Your task to perform on an android device: delete browsing data in the chrome app Image 0: 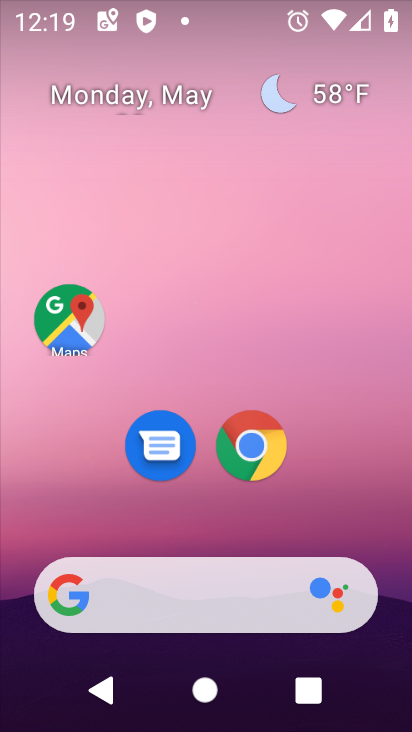
Step 0: click (248, 436)
Your task to perform on an android device: delete browsing data in the chrome app Image 1: 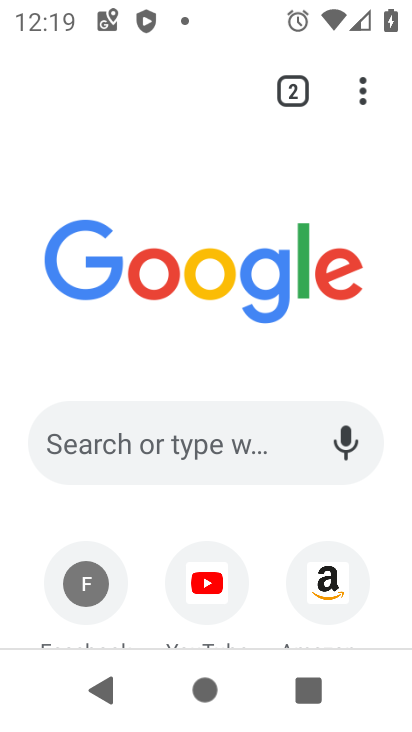
Step 1: click (361, 78)
Your task to perform on an android device: delete browsing data in the chrome app Image 2: 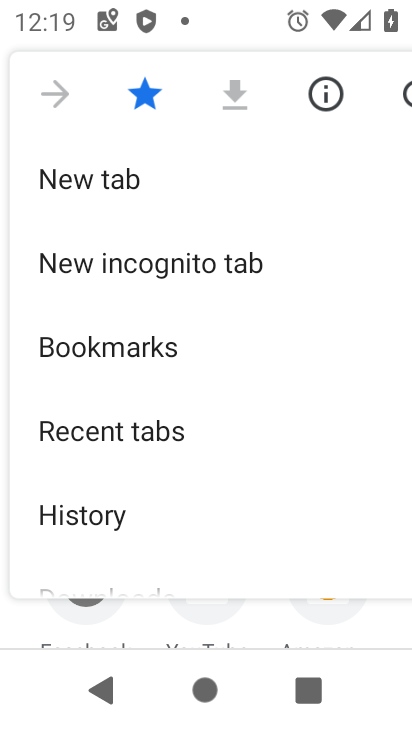
Step 2: click (140, 512)
Your task to perform on an android device: delete browsing data in the chrome app Image 3: 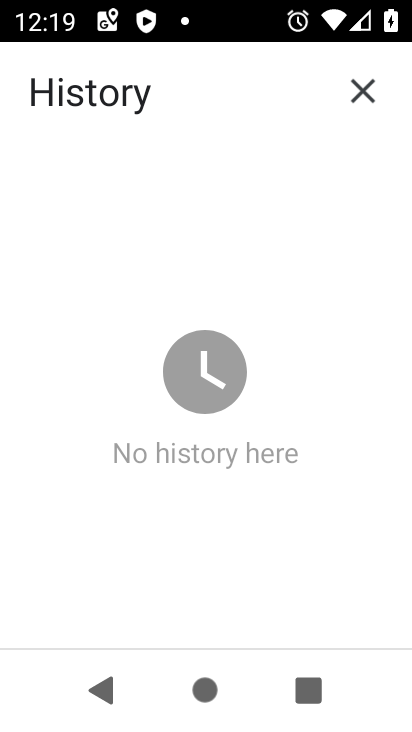
Step 3: click (364, 97)
Your task to perform on an android device: delete browsing data in the chrome app Image 4: 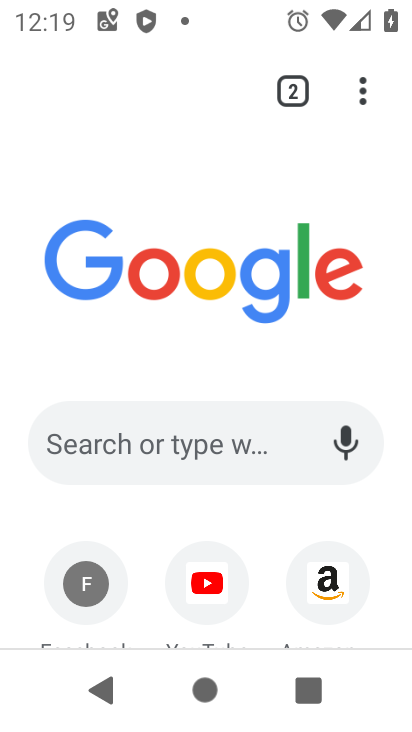
Step 4: click (364, 99)
Your task to perform on an android device: delete browsing data in the chrome app Image 5: 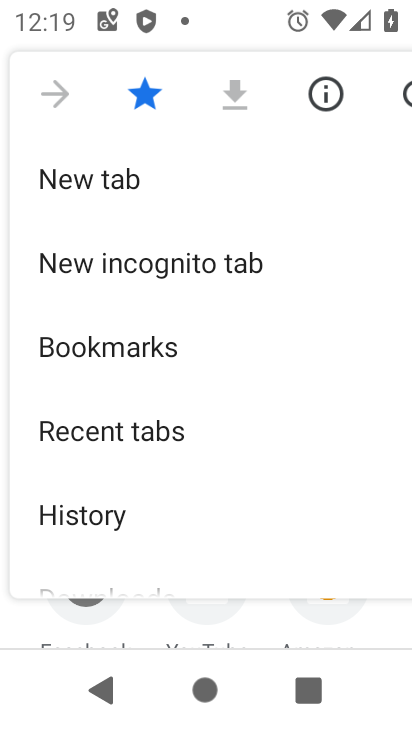
Step 5: click (147, 507)
Your task to perform on an android device: delete browsing data in the chrome app Image 6: 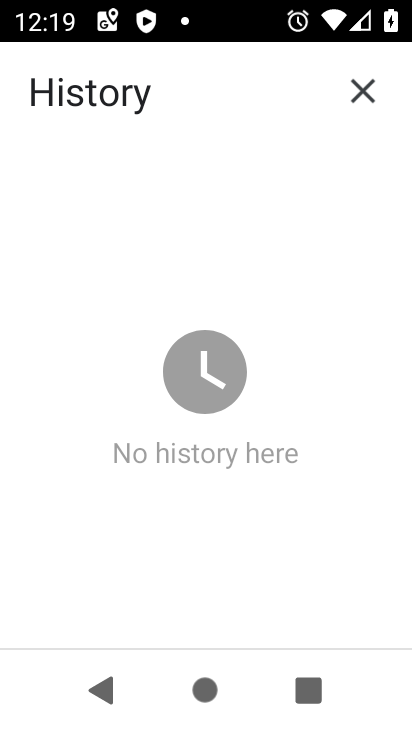
Step 6: task complete